Your task to perform on an android device: allow cookies in the chrome app Image 0: 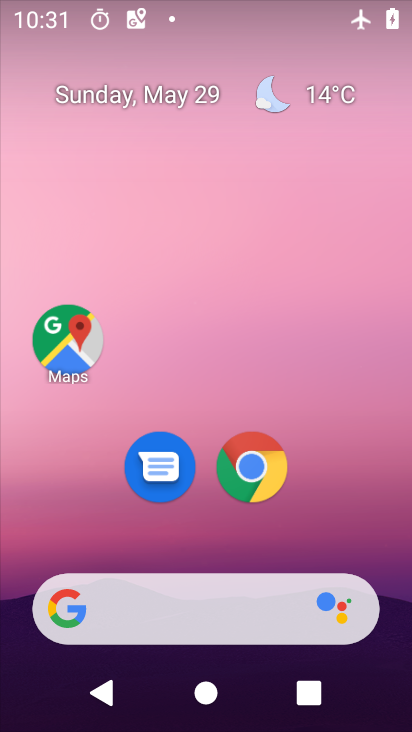
Step 0: click (263, 459)
Your task to perform on an android device: allow cookies in the chrome app Image 1: 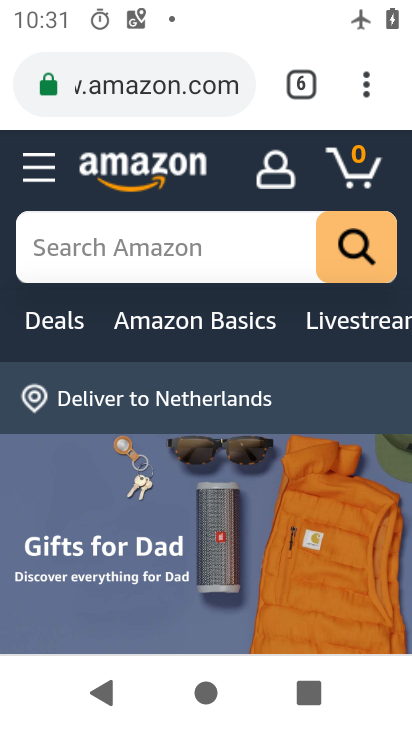
Step 1: click (373, 83)
Your task to perform on an android device: allow cookies in the chrome app Image 2: 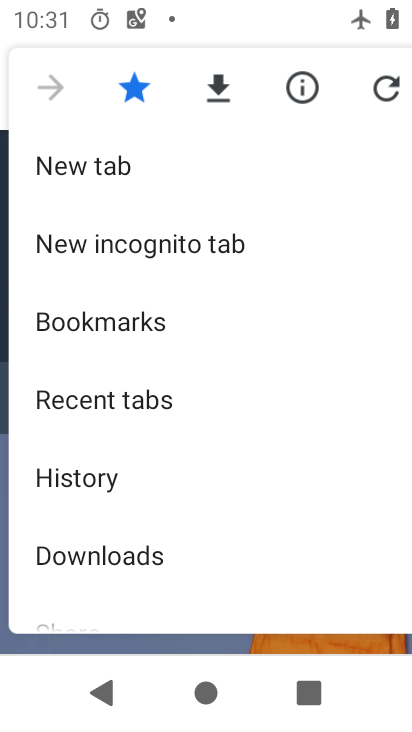
Step 2: drag from (188, 521) to (186, 244)
Your task to perform on an android device: allow cookies in the chrome app Image 3: 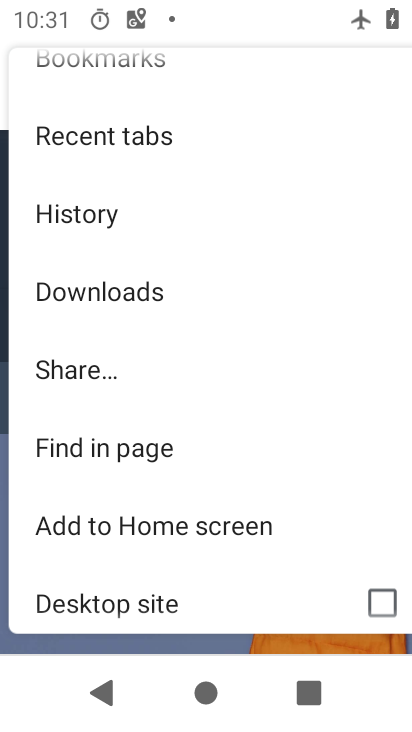
Step 3: drag from (185, 531) to (203, 255)
Your task to perform on an android device: allow cookies in the chrome app Image 4: 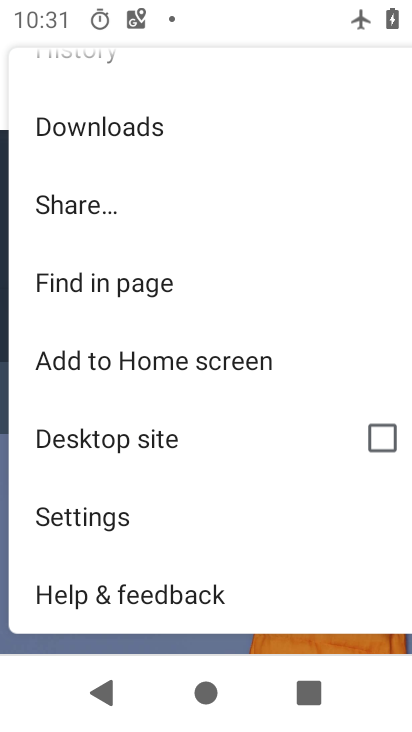
Step 4: click (182, 501)
Your task to perform on an android device: allow cookies in the chrome app Image 5: 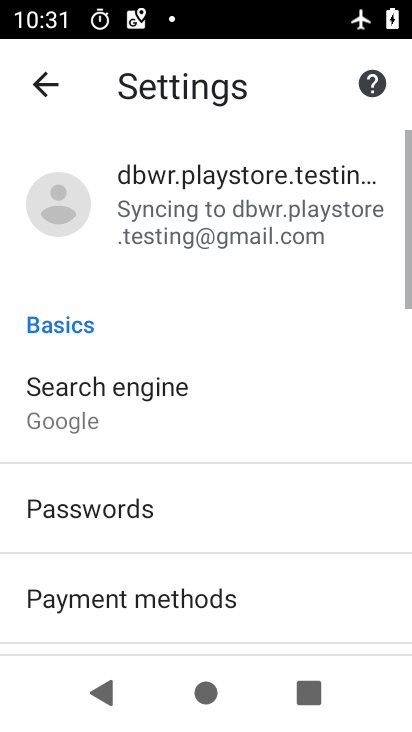
Step 5: drag from (253, 564) to (245, 264)
Your task to perform on an android device: allow cookies in the chrome app Image 6: 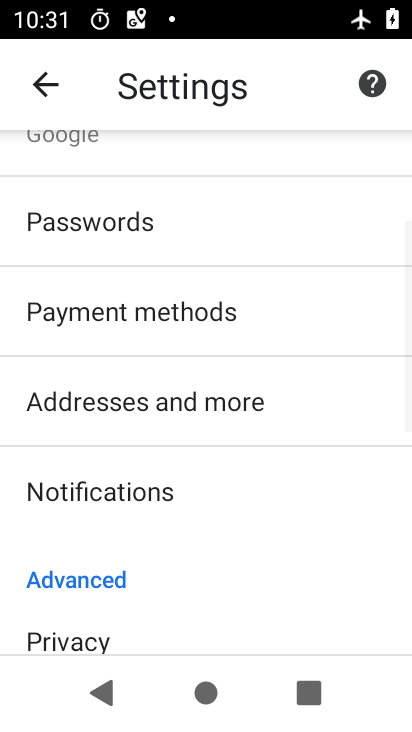
Step 6: drag from (265, 551) to (257, 259)
Your task to perform on an android device: allow cookies in the chrome app Image 7: 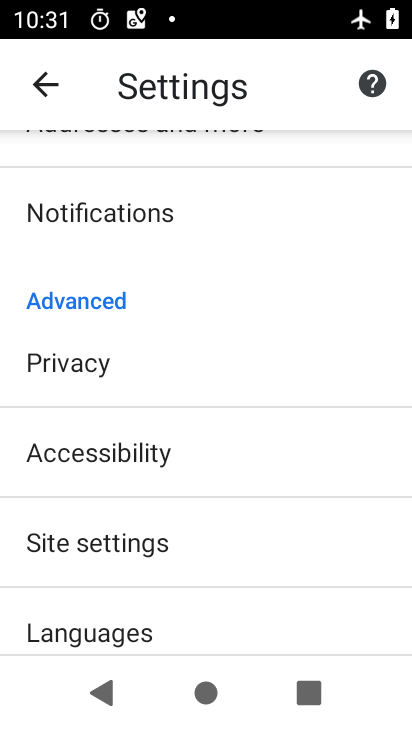
Step 7: drag from (248, 586) to (230, 344)
Your task to perform on an android device: allow cookies in the chrome app Image 8: 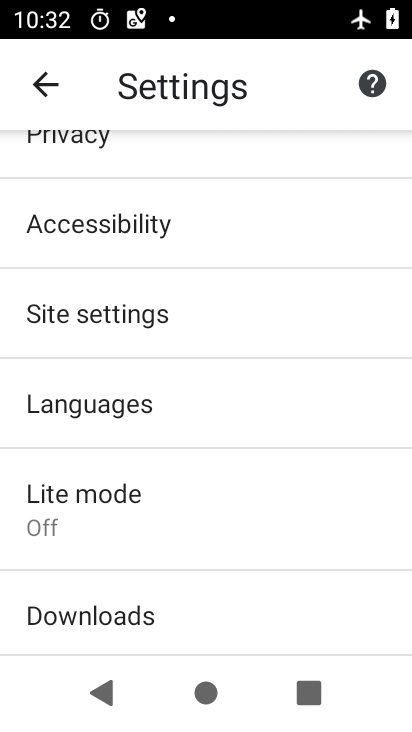
Step 8: click (116, 323)
Your task to perform on an android device: allow cookies in the chrome app Image 9: 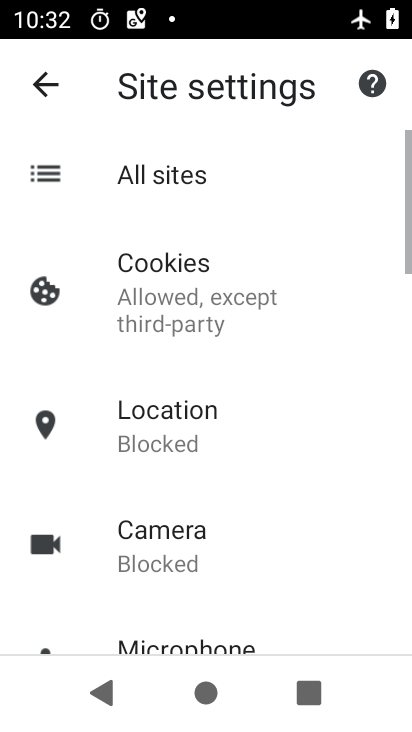
Step 9: click (176, 286)
Your task to perform on an android device: allow cookies in the chrome app Image 10: 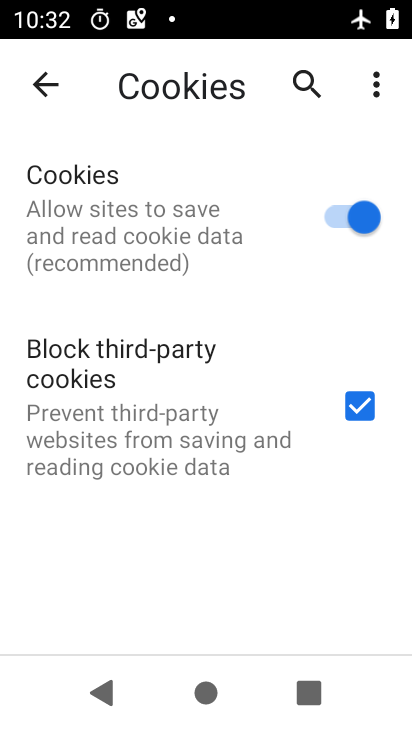
Step 10: task complete